Your task to perform on an android device: open app "HBO Max: Stream TV & Movies" Image 0: 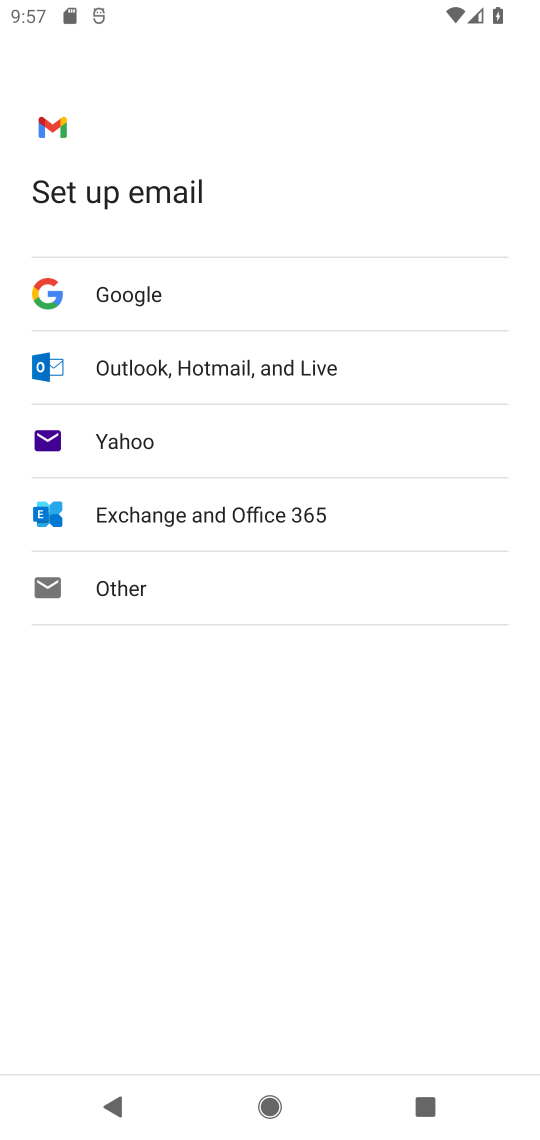
Step 0: press home button
Your task to perform on an android device: open app "HBO Max: Stream TV & Movies" Image 1: 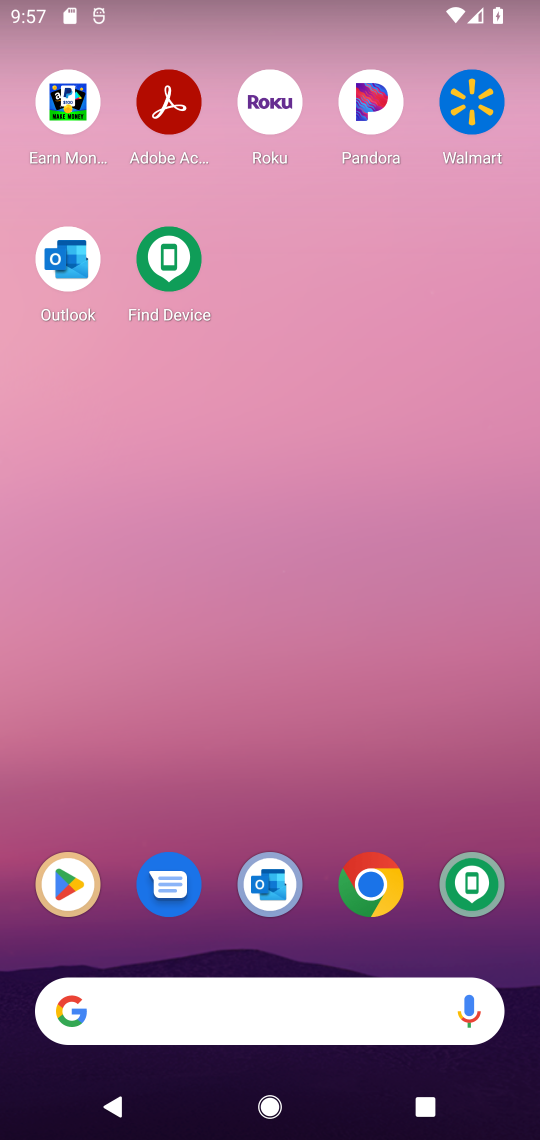
Step 1: click (78, 867)
Your task to perform on an android device: open app "HBO Max: Stream TV & Movies" Image 2: 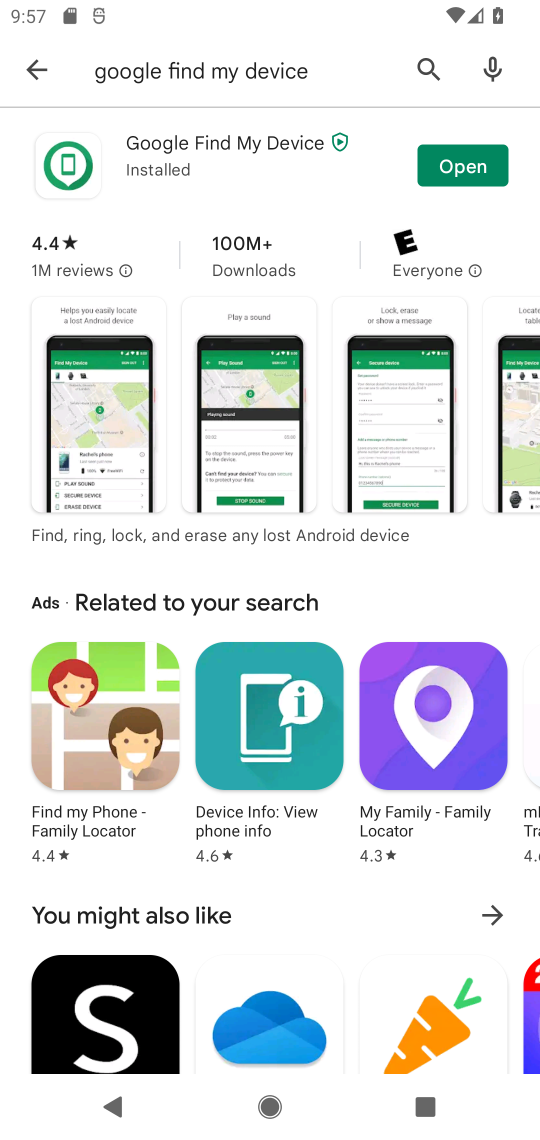
Step 2: click (191, 90)
Your task to perform on an android device: open app "HBO Max: Stream TV & Movies" Image 3: 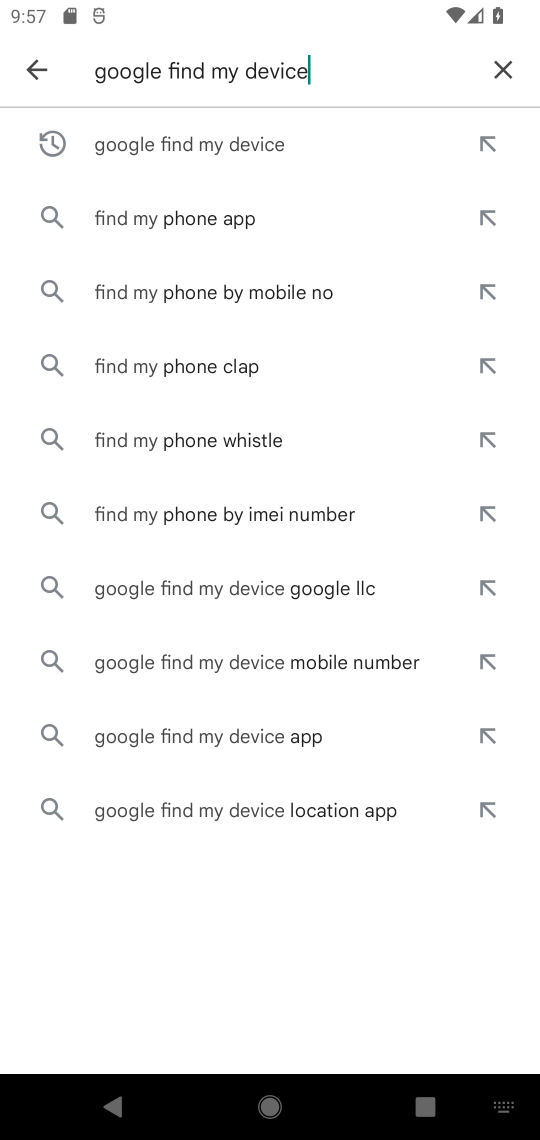
Step 3: click (502, 66)
Your task to perform on an android device: open app "HBO Max: Stream TV & Movies" Image 4: 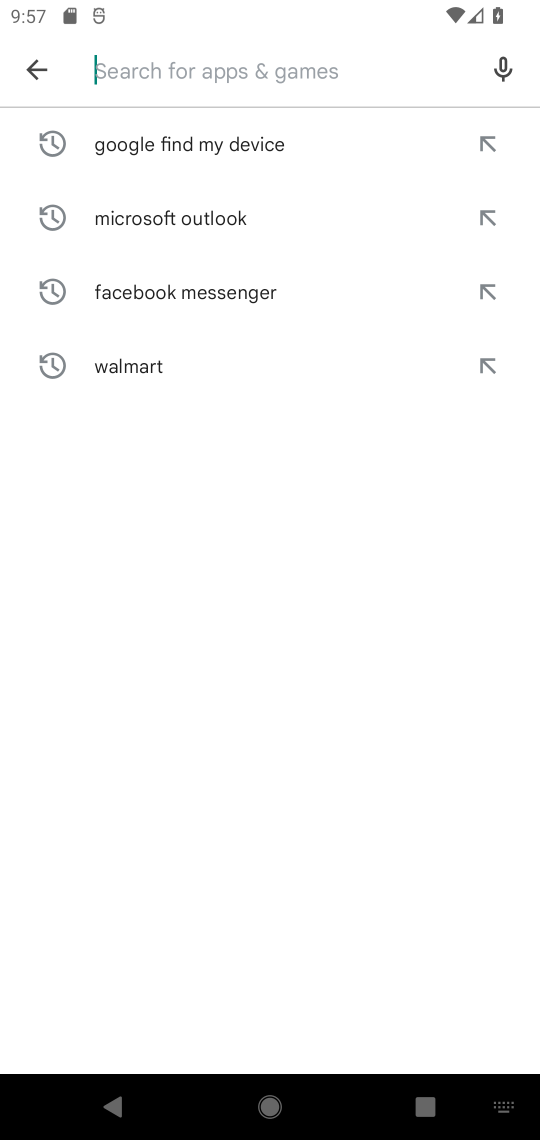
Step 4: type "HBO Max"
Your task to perform on an android device: open app "HBO Max: Stream TV & Movies" Image 5: 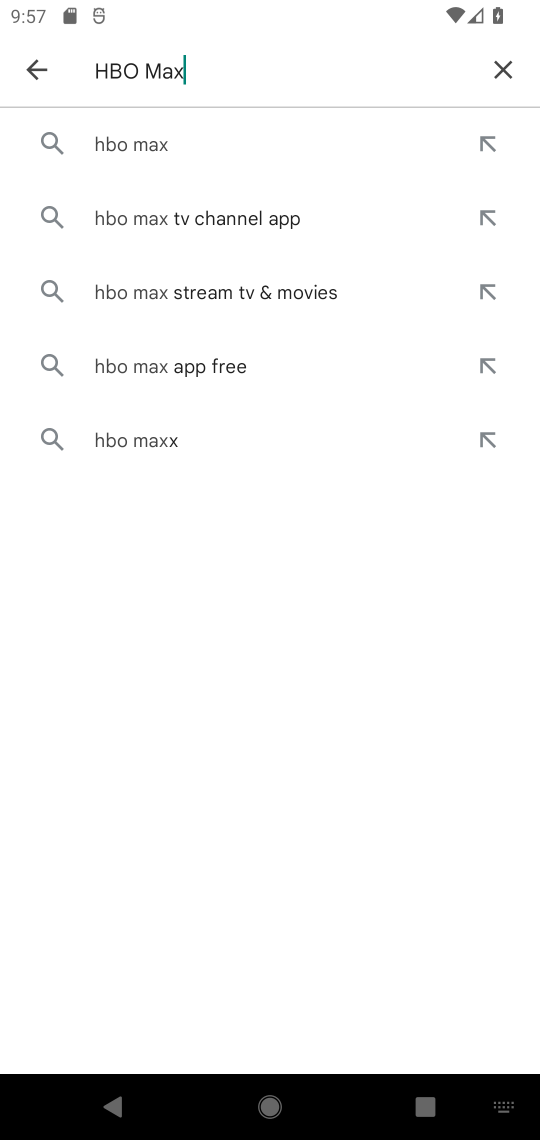
Step 5: click (156, 137)
Your task to perform on an android device: open app "HBO Max: Stream TV & Movies" Image 6: 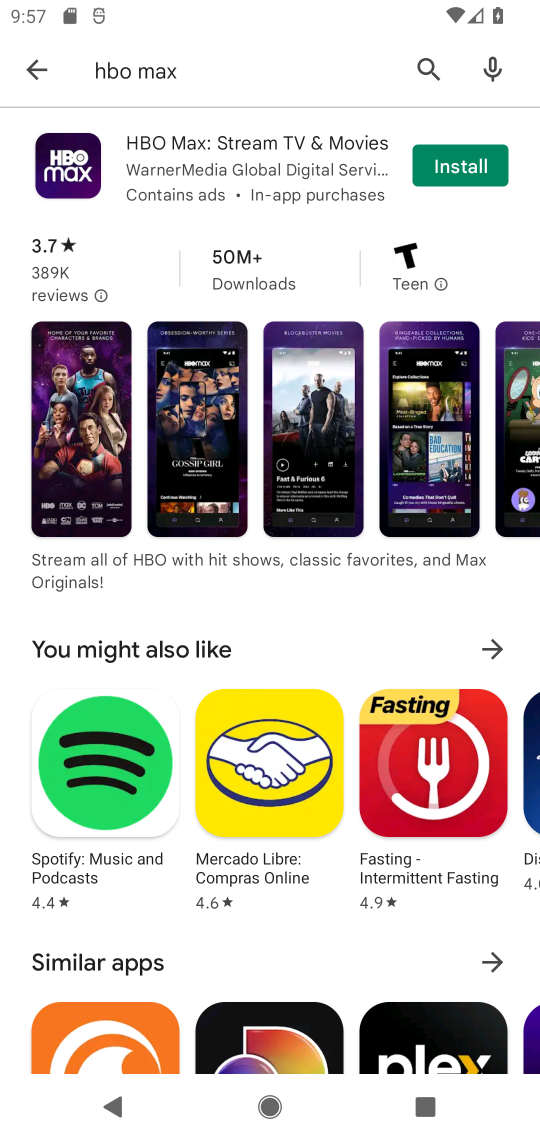
Step 6: click (479, 159)
Your task to perform on an android device: open app "HBO Max: Stream TV & Movies" Image 7: 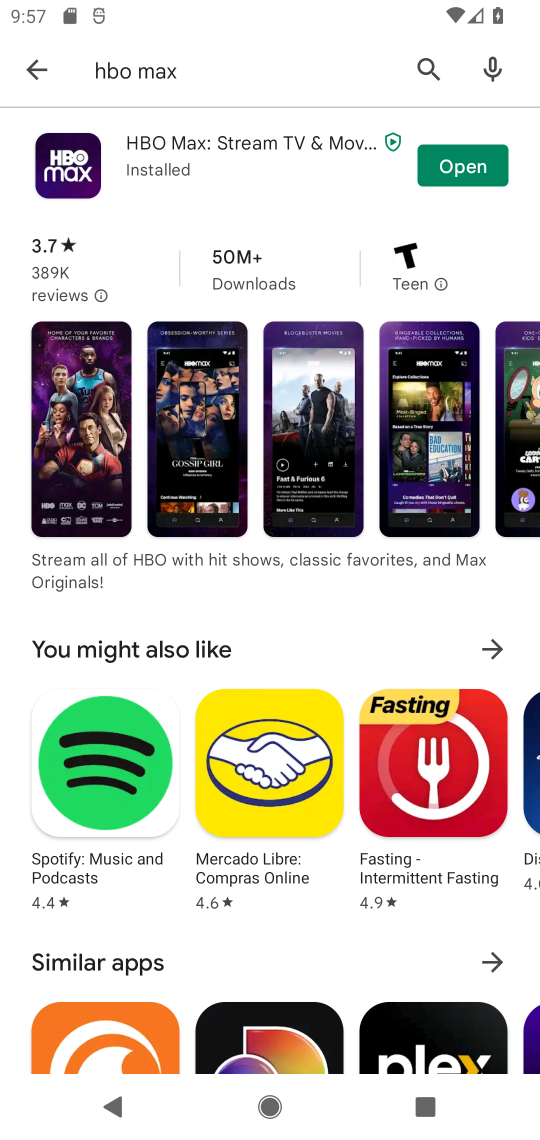
Step 7: click (455, 171)
Your task to perform on an android device: open app "HBO Max: Stream TV & Movies" Image 8: 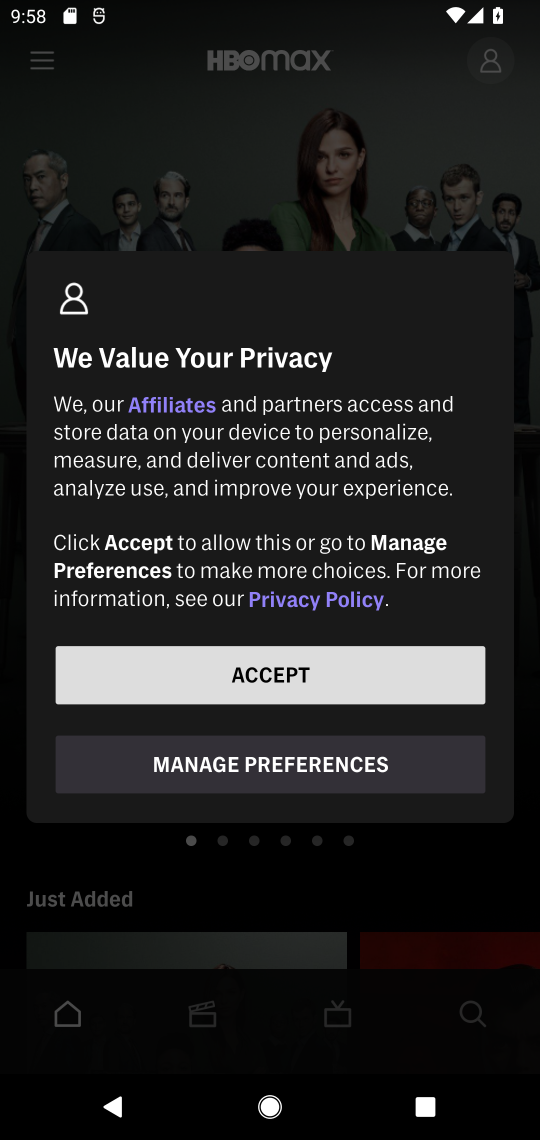
Step 8: click (335, 673)
Your task to perform on an android device: open app "HBO Max: Stream TV & Movies" Image 9: 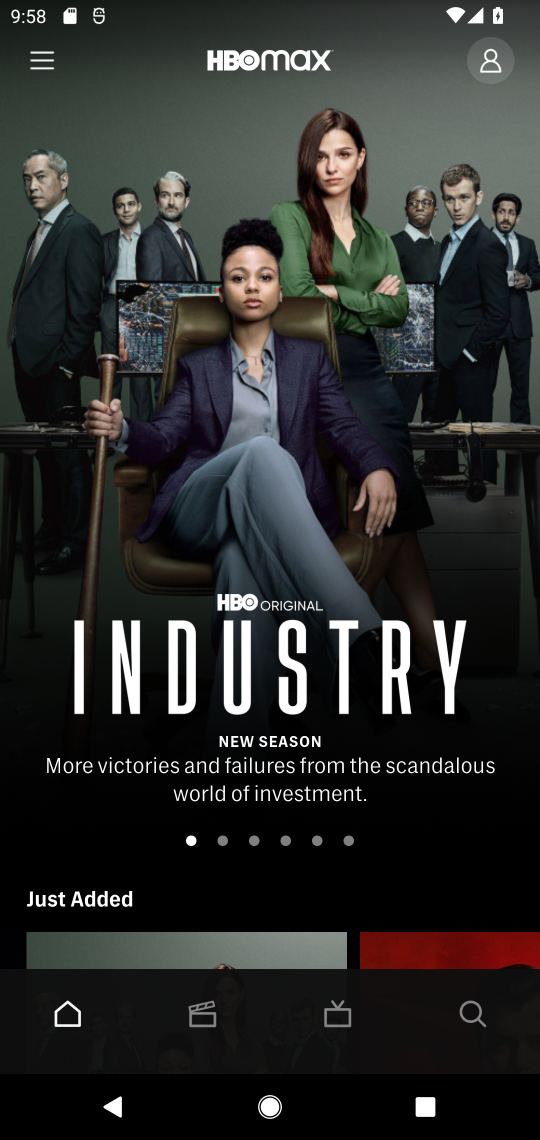
Step 9: task complete